Your task to perform on an android device: What is the news today? Image 0: 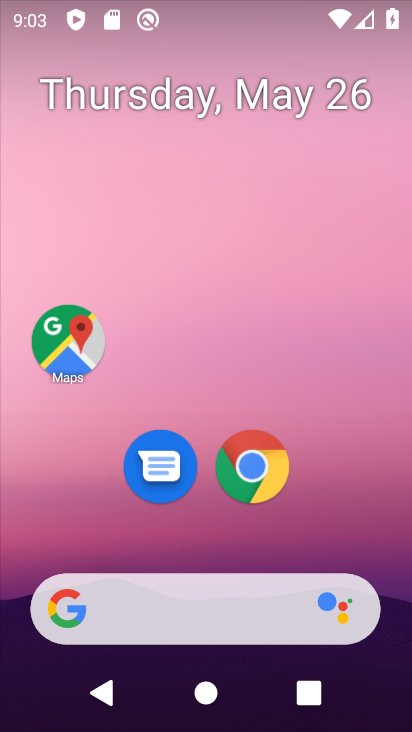
Step 0: drag from (10, 217) to (333, 330)
Your task to perform on an android device: What is the news today? Image 1: 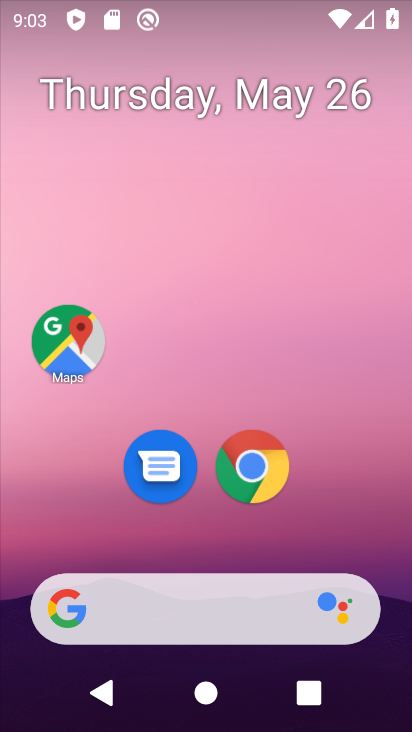
Step 1: task complete